Your task to perform on an android device: manage bookmarks in the chrome app Image 0: 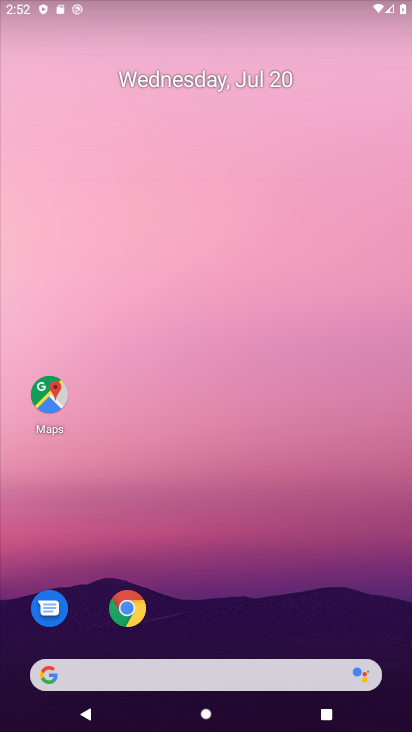
Step 0: drag from (302, 585) to (294, 20)
Your task to perform on an android device: manage bookmarks in the chrome app Image 1: 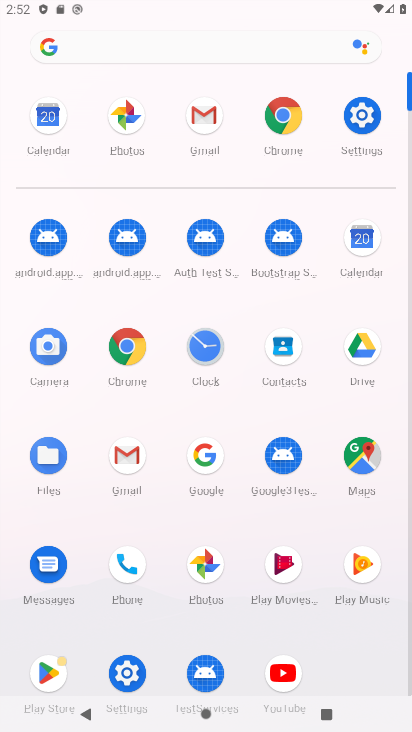
Step 1: click (282, 118)
Your task to perform on an android device: manage bookmarks in the chrome app Image 2: 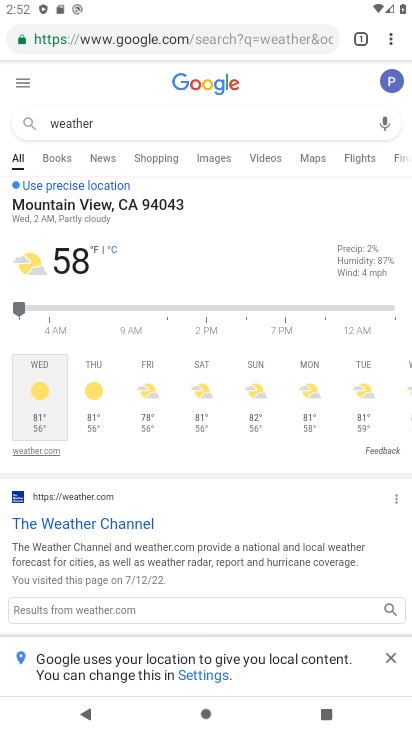
Step 2: drag from (394, 37) to (273, 148)
Your task to perform on an android device: manage bookmarks in the chrome app Image 3: 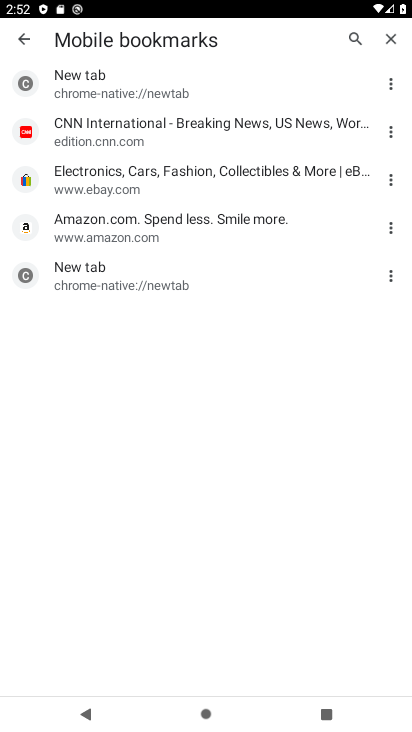
Step 3: click (391, 80)
Your task to perform on an android device: manage bookmarks in the chrome app Image 4: 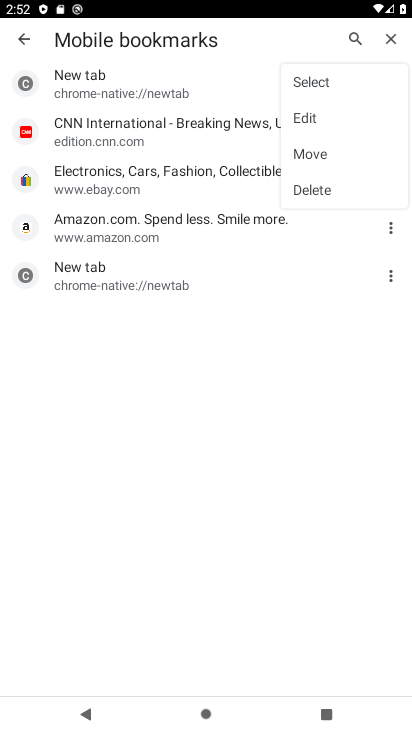
Step 4: click (318, 120)
Your task to perform on an android device: manage bookmarks in the chrome app Image 5: 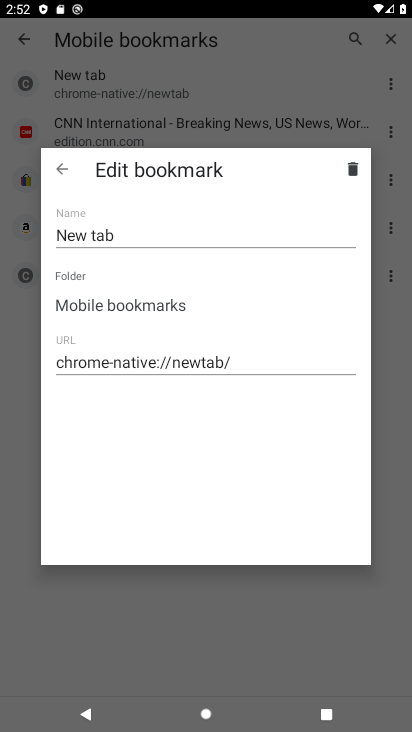
Step 5: click (209, 238)
Your task to perform on an android device: manage bookmarks in the chrome app Image 6: 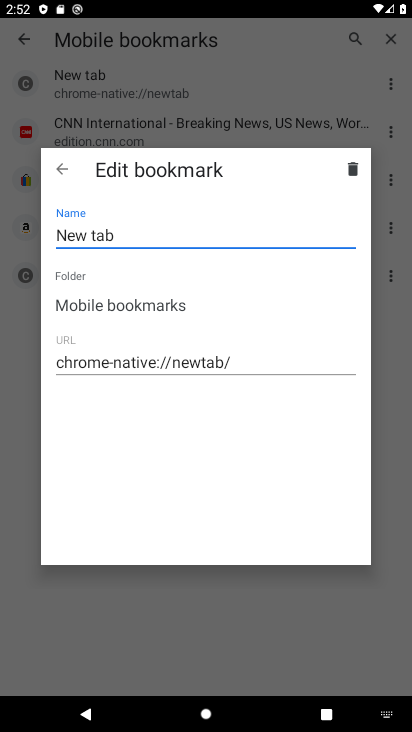
Step 6: type " voc"
Your task to perform on an android device: manage bookmarks in the chrome app Image 7: 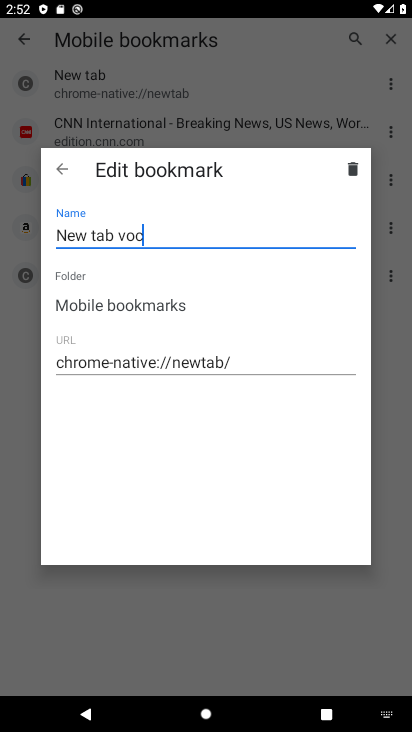
Step 7: click (65, 172)
Your task to perform on an android device: manage bookmarks in the chrome app Image 8: 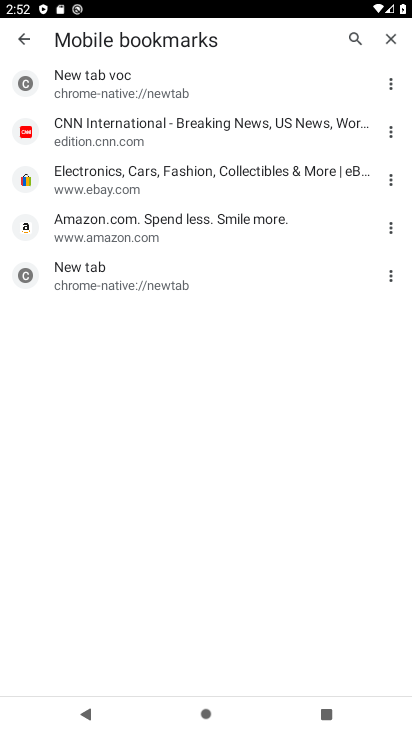
Step 8: task complete